Your task to perform on an android device: make emails show in primary in the gmail app Image 0: 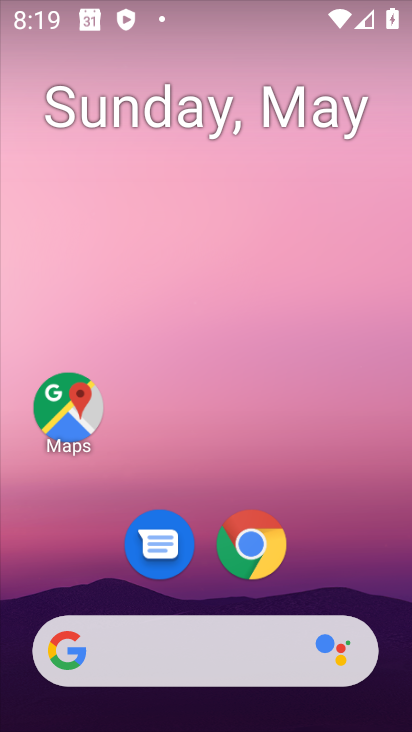
Step 0: drag from (377, 483) to (357, 49)
Your task to perform on an android device: make emails show in primary in the gmail app Image 1: 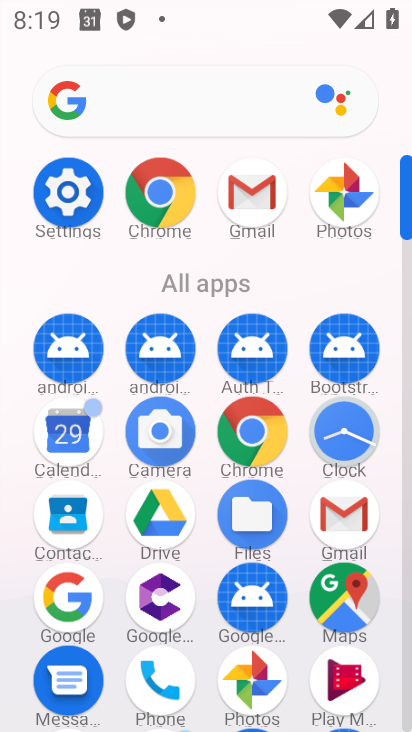
Step 1: click (239, 205)
Your task to perform on an android device: make emails show in primary in the gmail app Image 2: 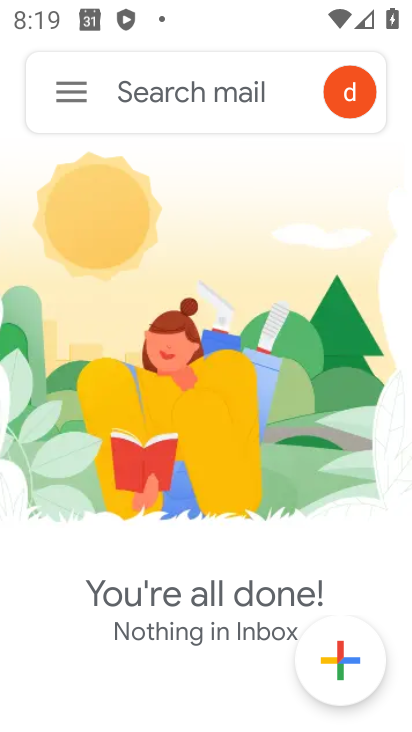
Step 2: click (89, 92)
Your task to perform on an android device: make emails show in primary in the gmail app Image 3: 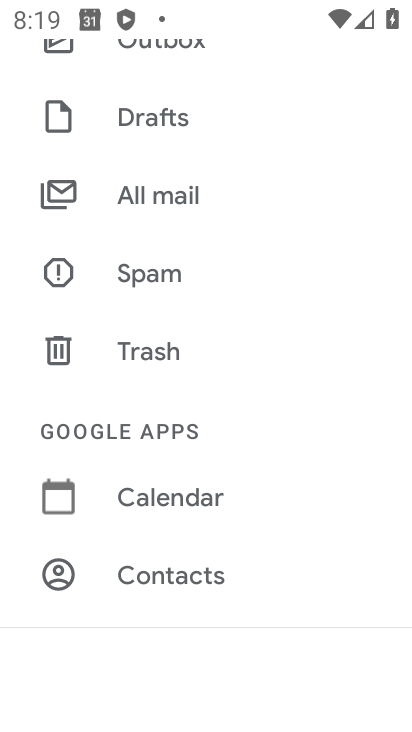
Step 3: drag from (182, 567) to (153, 135)
Your task to perform on an android device: make emails show in primary in the gmail app Image 4: 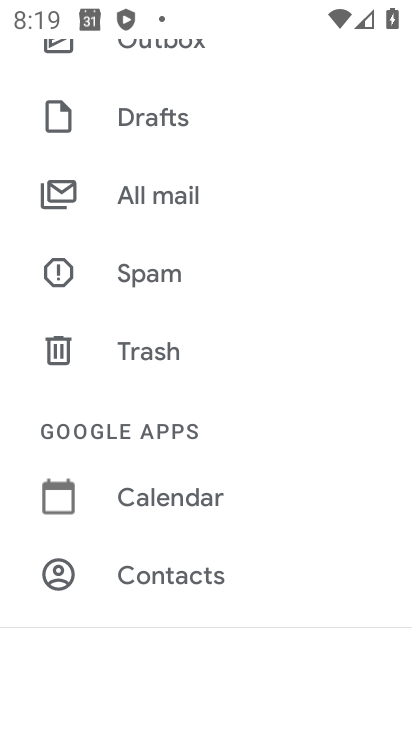
Step 4: drag from (173, 274) to (180, 592)
Your task to perform on an android device: make emails show in primary in the gmail app Image 5: 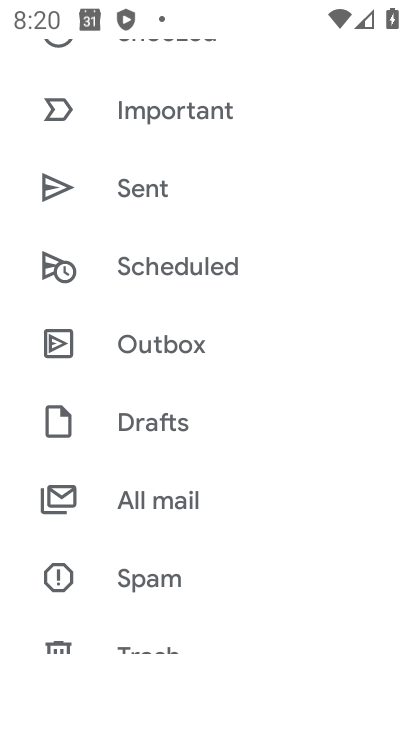
Step 5: drag from (213, 168) to (240, 608)
Your task to perform on an android device: make emails show in primary in the gmail app Image 6: 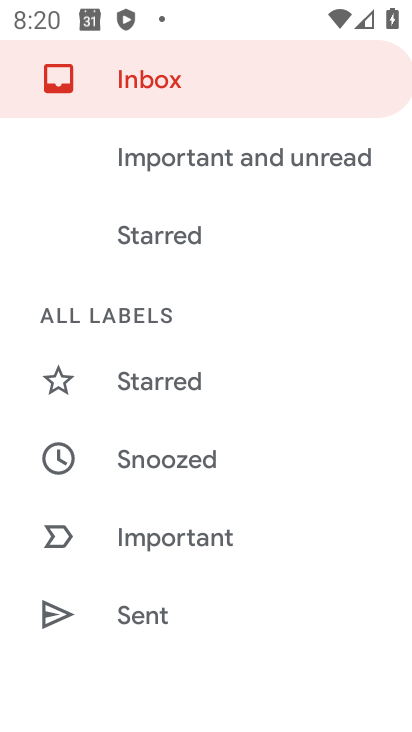
Step 6: drag from (236, 608) to (214, 124)
Your task to perform on an android device: make emails show in primary in the gmail app Image 7: 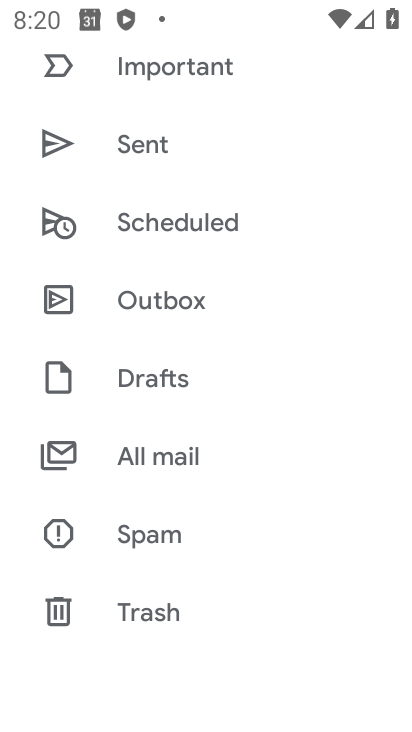
Step 7: drag from (236, 541) to (257, 120)
Your task to perform on an android device: make emails show in primary in the gmail app Image 8: 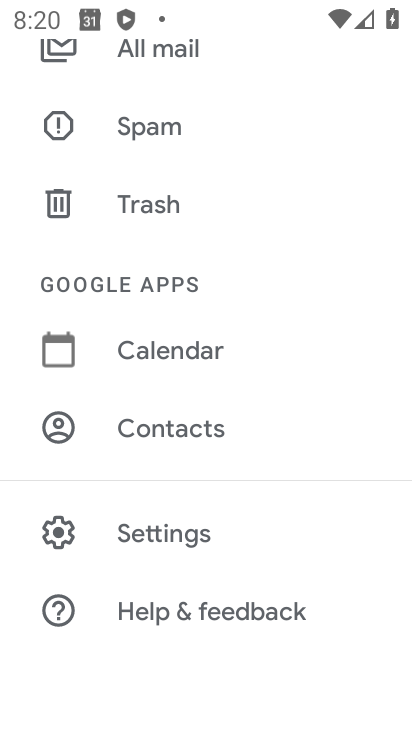
Step 8: click (142, 534)
Your task to perform on an android device: make emails show in primary in the gmail app Image 9: 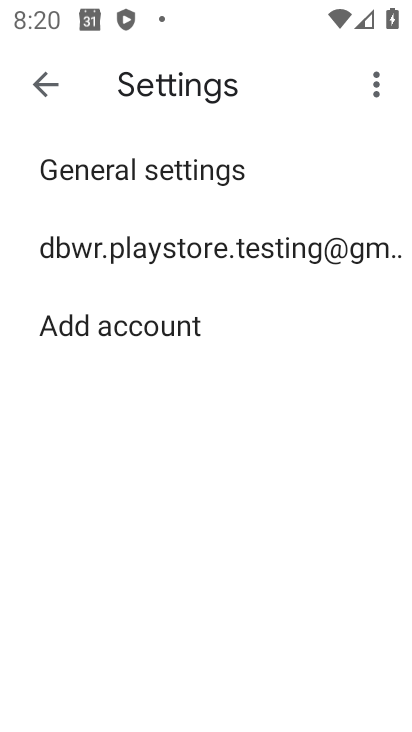
Step 9: click (173, 255)
Your task to perform on an android device: make emails show in primary in the gmail app Image 10: 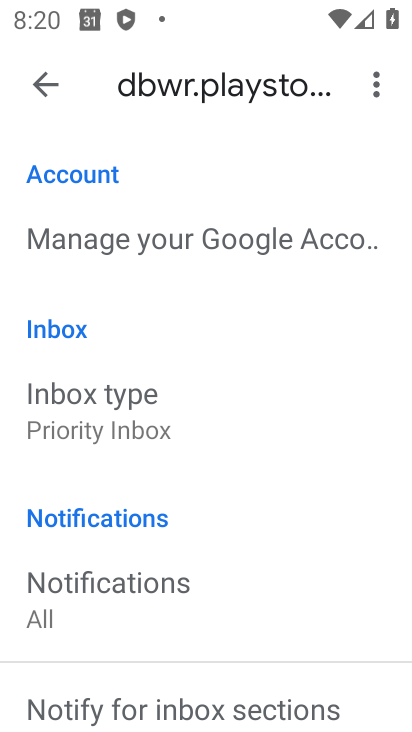
Step 10: click (121, 428)
Your task to perform on an android device: make emails show in primary in the gmail app Image 11: 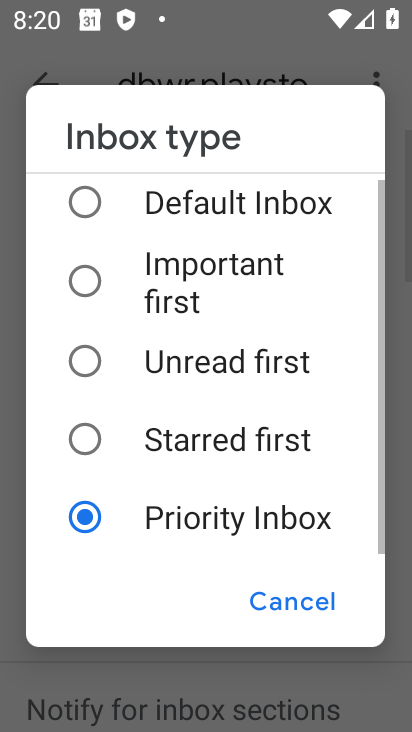
Step 11: drag from (168, 256) to (198, 565)
Your task to perform on an android device: make emails show in primary in the gmail app Image 12: 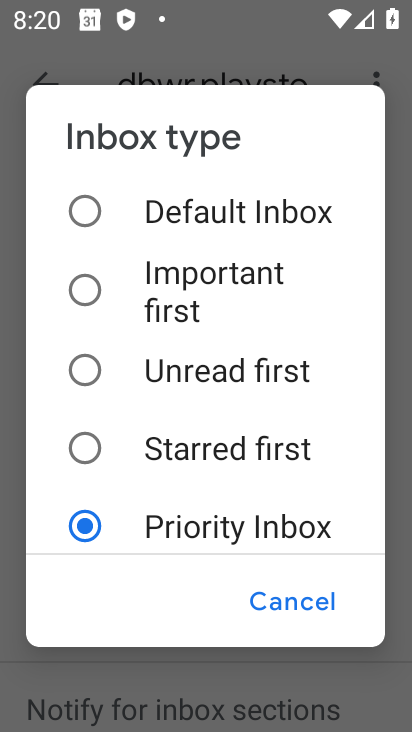
Step 12: drag from (171, 386) to (188, 593)
Your task to perform on an android device: make emails show in primary in the gmail app Image 13: 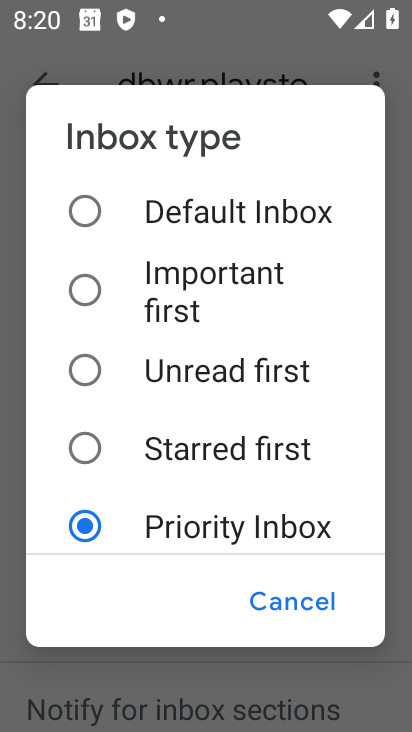
Step 13: click (133, 211)
Your task to perform on an android device: make emails show in primary in the gmail app Image 14: 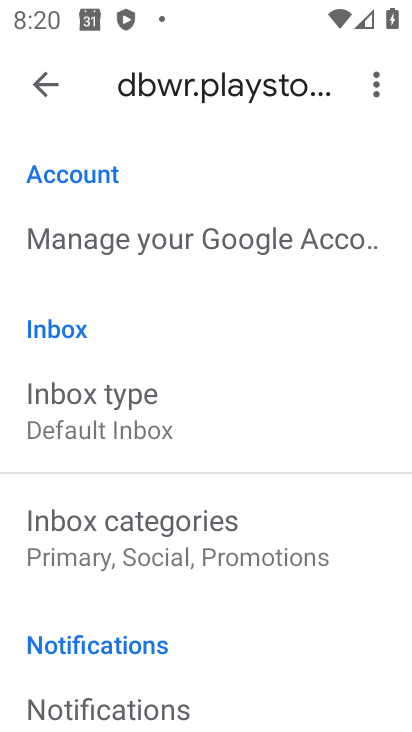
Step 14: task complete